Your task to perform on an android device: turn off location Image 0: 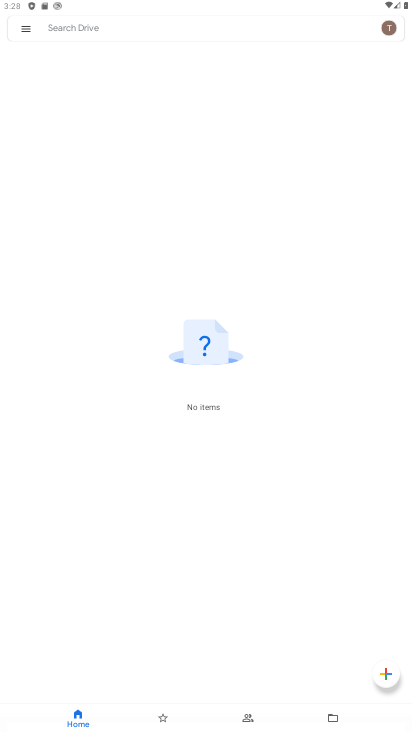
Step 0: press home button
Your task to perform on an android device: turn off location Image 1: 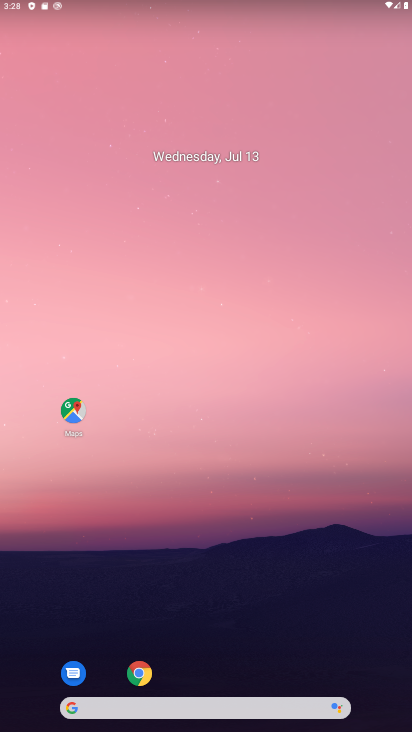
Step 1: drag from (250, 637) to (318, 143)
Your task to perform on an android device: turn off location Image 2: 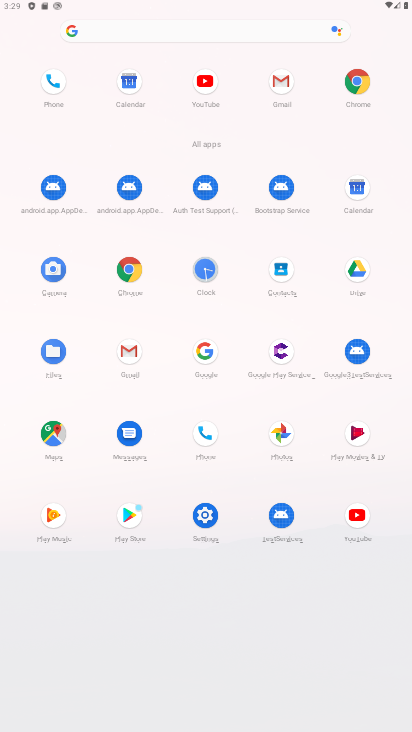
Step 2: click (204, 512)
Your task to perform on an android device: turn off location Image 3: 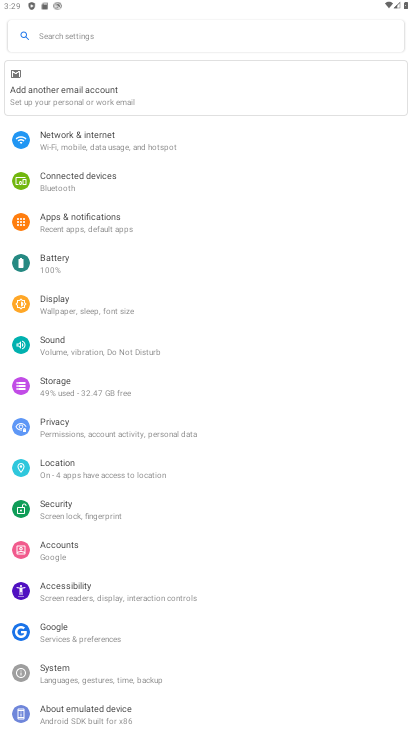
Step 3: click (63, 464)
Your task to perform on an android device: turn off location Image 4: 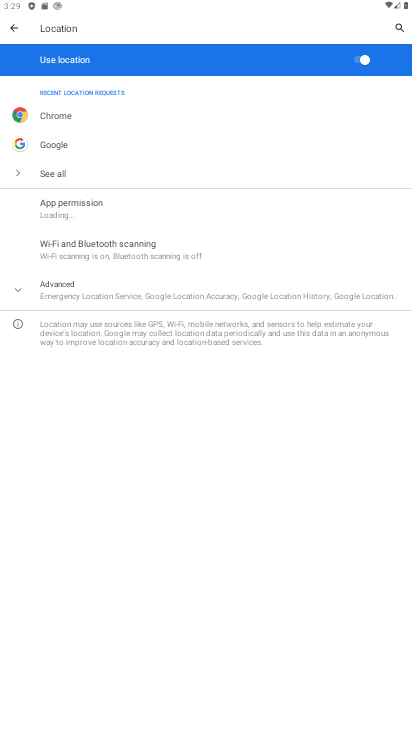
Step 4: click (358, 64)
Your task to perform on an android device: turn off location Image 5: 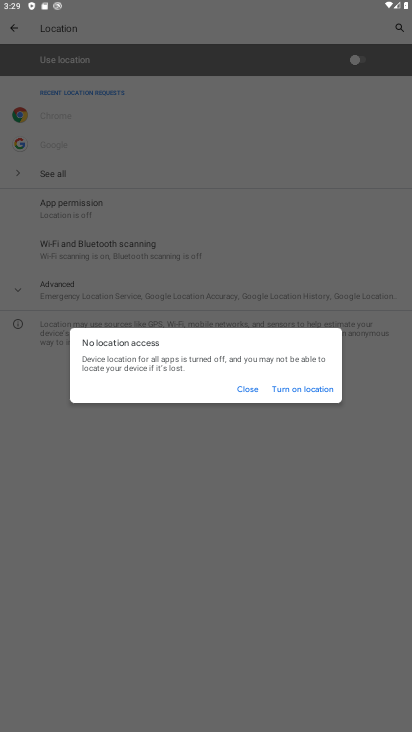
Step 5: click (283, 386)
Your task to perform on an android device: turn off location Image 6: 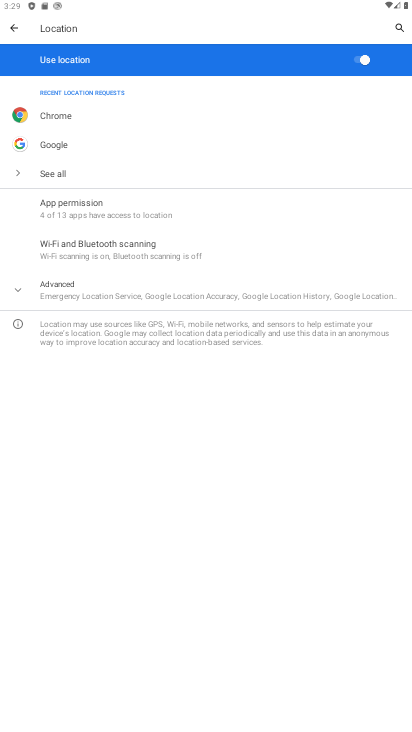
Step 6: click (341, 51)
Your task to perform on an android device: turn off location Image 7: 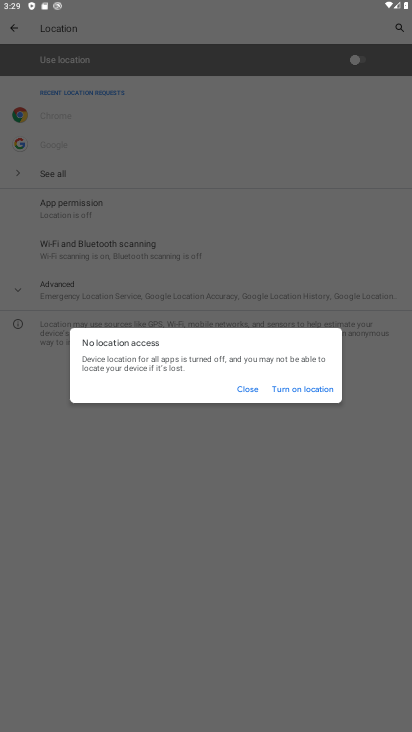
Step 7: click (248, 390)
Your task to perform on an android device: turn off location Image 8: 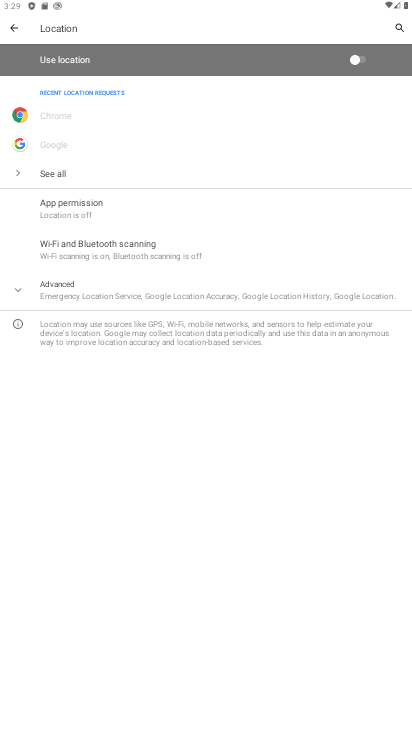
Step 8: task complete